Your task to perform on an android device: clear all cookies in the chrome app Image 0: 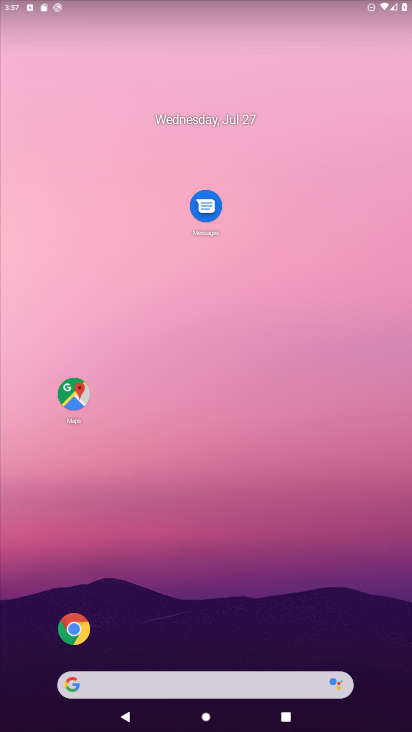
Step 0: click (76, 635)
Your task to perform on an android device: clear all cookies in the chrome app Image 1: 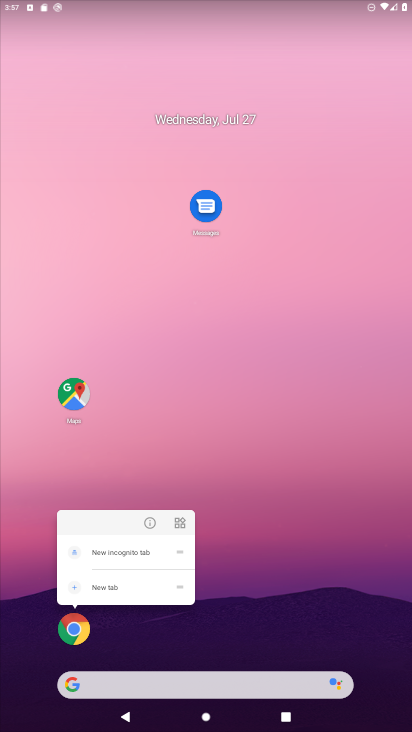
Step 1: click (101, 586)
Your task to perform on an android device: clear all cookies in the chrome app Image 2: 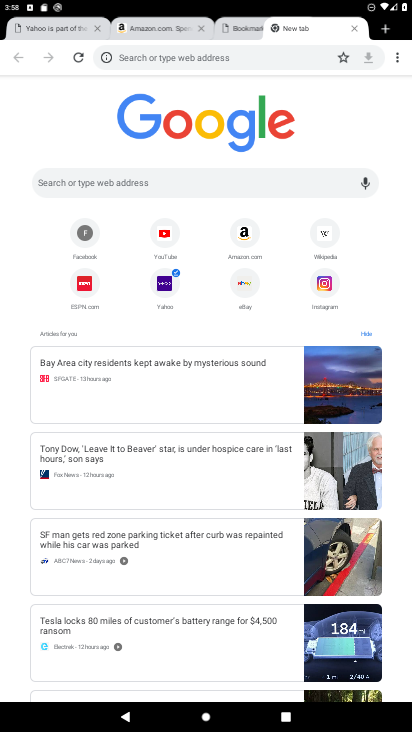
Step 2: click (400, 56)
Your task to perform on an android device: clear all cookies in the chrome app Image 3: 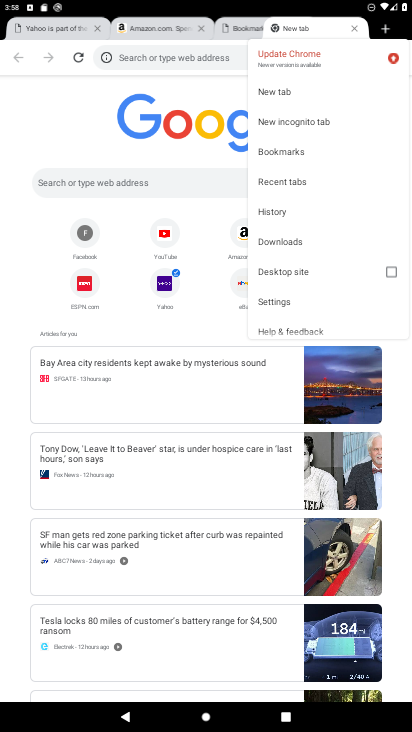
Step 3: click (290, 297)
Your task to perform on an android device: clear all cookies in the chrome app Image 4: 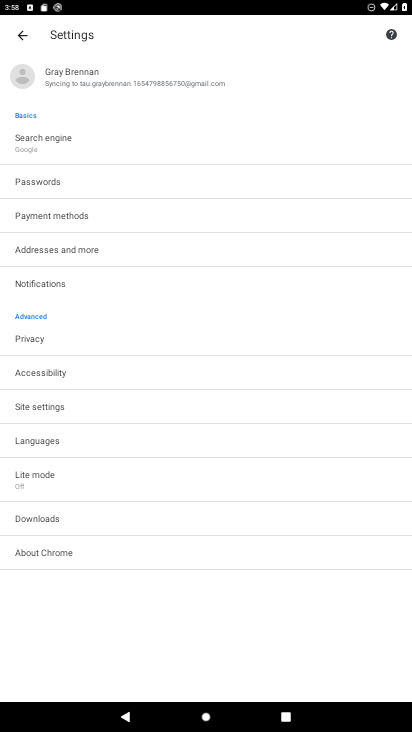
Step 4: click (23, 42)
Your task to perform on an android device: clear all cookies in the chrome app Image 5: 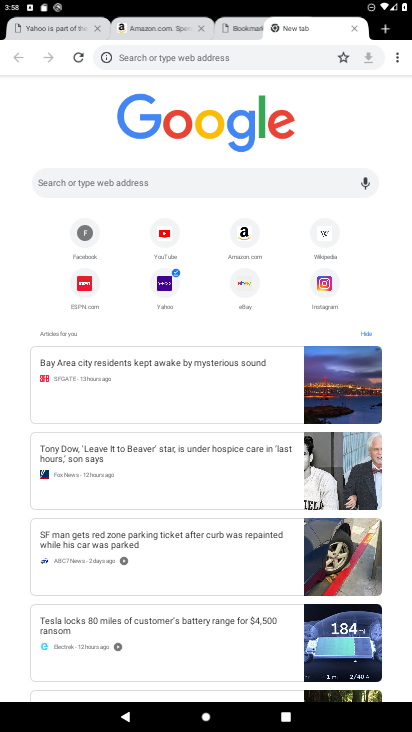
Step 5: click (401, 56)
Your task to perform on an android device: clear all cookies in the chrome app Image 6: 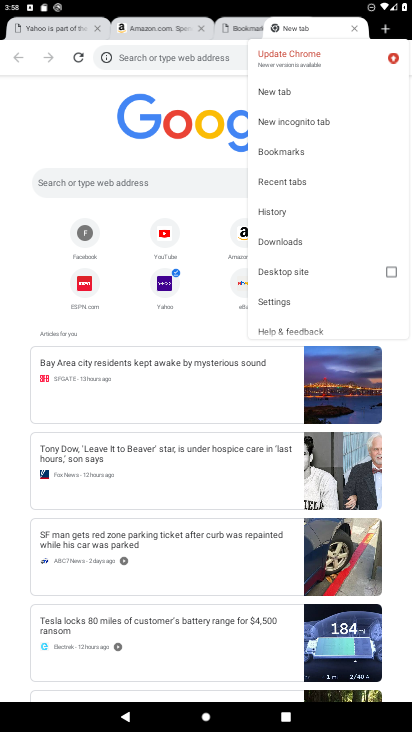
Step 6: click (275, 214)
Your task to perform on an android device: clear all cookies in the chrome app Image 7: 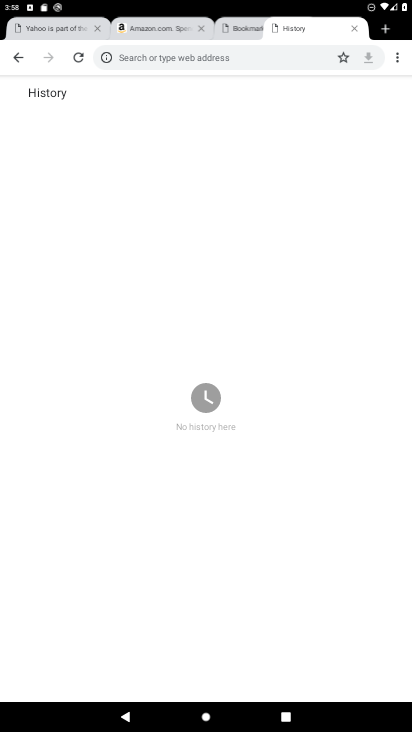
Step 7: task complete